Your task to perform on an android device: Show me recent news Image 0: 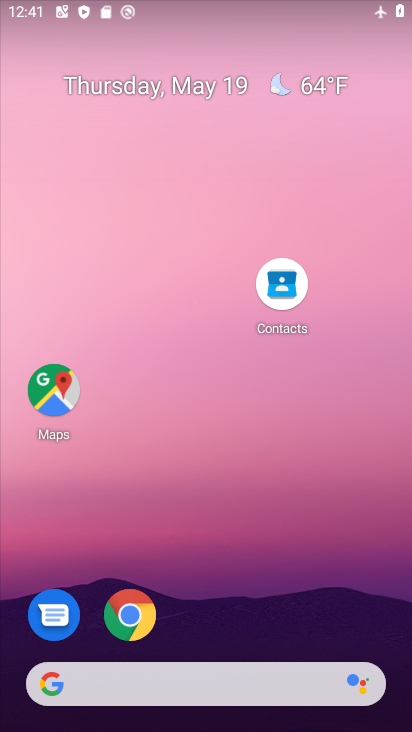
Step 0: drag from (235, 512) to (311, 83)
Your task to perform on an android device: Show me recent news Image 1: 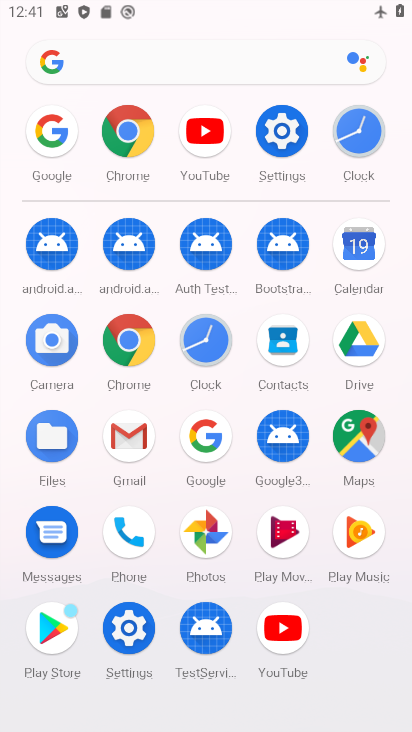
Step 1: click (212, 429)
Your task to perform on an android device: Show me recent news Image 2: 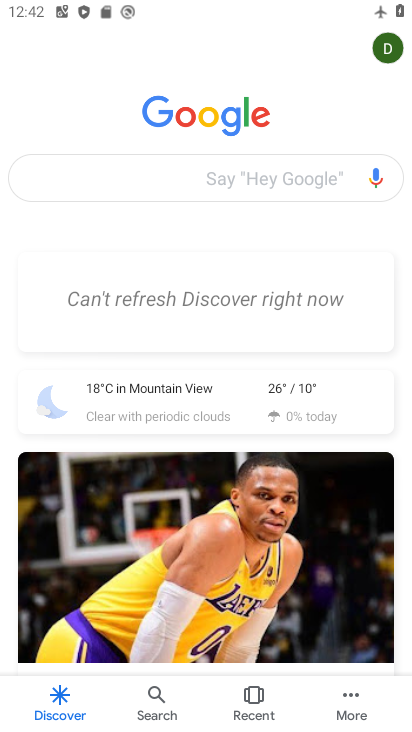
Step 2: click (244, 177)
Your task to perform on an android device: Show me recent news Image 3: 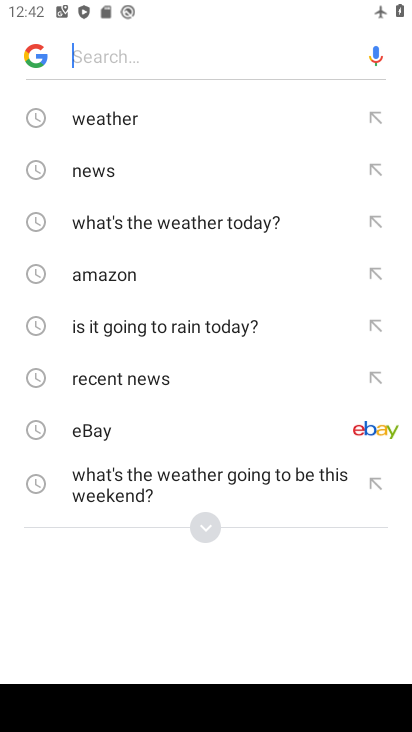
Step 3: click (168, 380)
Your task to perform on an android device: Show me recent news Image 4: 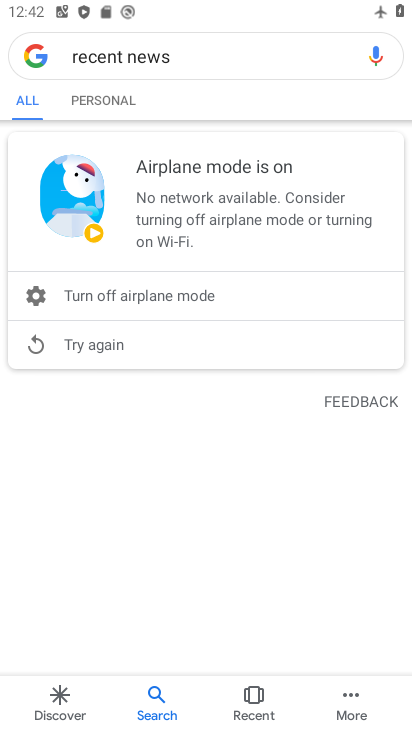
Step 4: task complete